Your task to perform on an android device: toggle javascript in the chrome app Image 0: 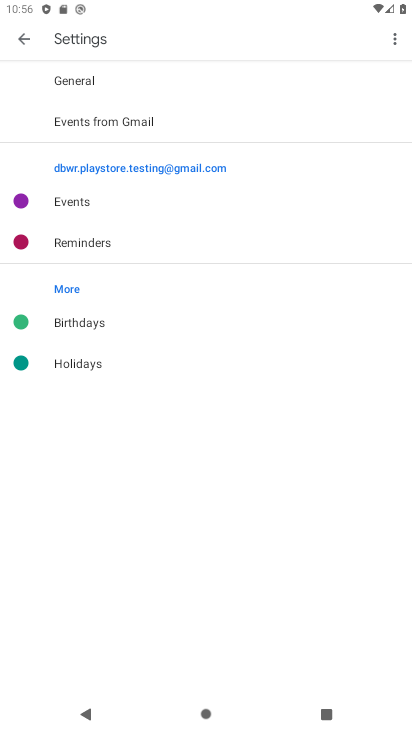
Step 0: press back button
Your task to perform on an android device: toggle javascript in the chrome app Image 1: 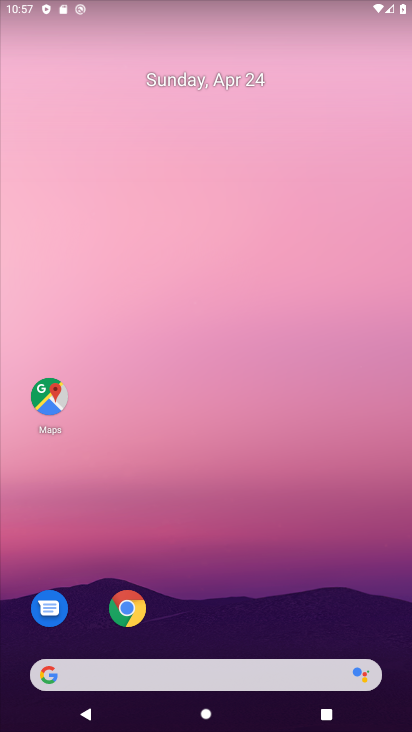
Step 1: drag from (216, 551) to (221, 17)
Your task to perform on an android device: toggle javascript in the chrome app Image 2: 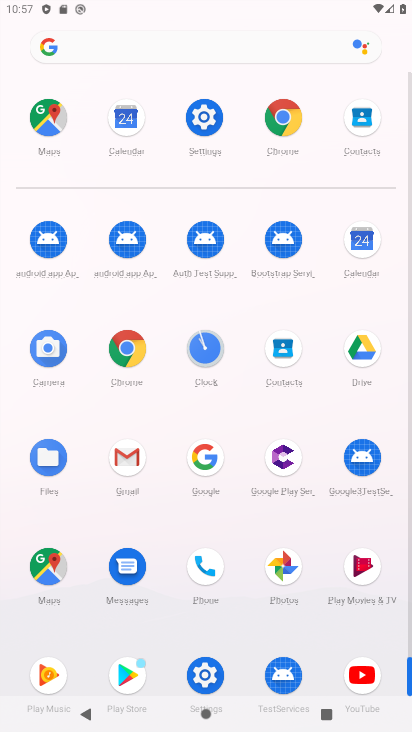
Step 2: drag from (8, 528) to (6, 265)
Your task to perform on an android device: toggle javascript in the chrome app Image 3: 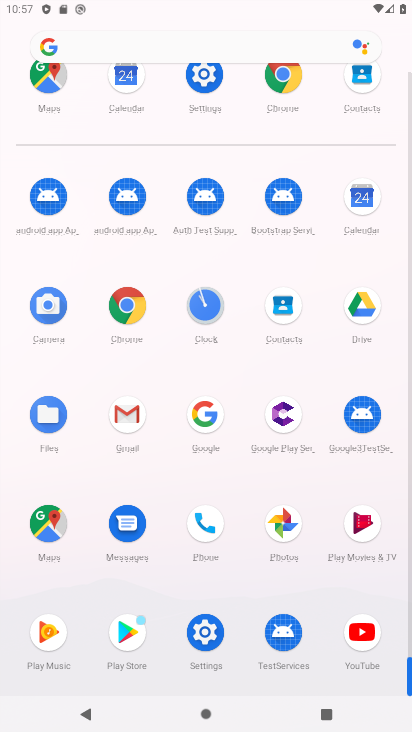
Step 3: click (129, 308)
Your task to perform on an android device: toggle javascript in the chrome app Image 4: 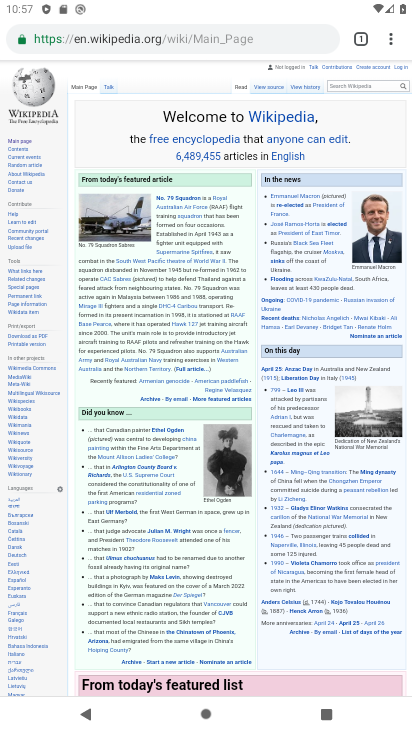
Step 4: drag from (392, 38) to (262, 512)
Your task to perform on an android device: toggle javascript in the chrome app Image 5: 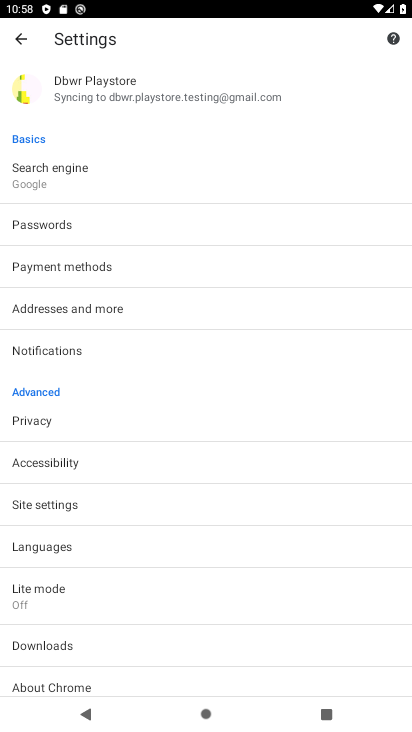
Step 5: click (87, 509)
Your task to perform on an android device: toggle javascript in the chrome app Image 6: 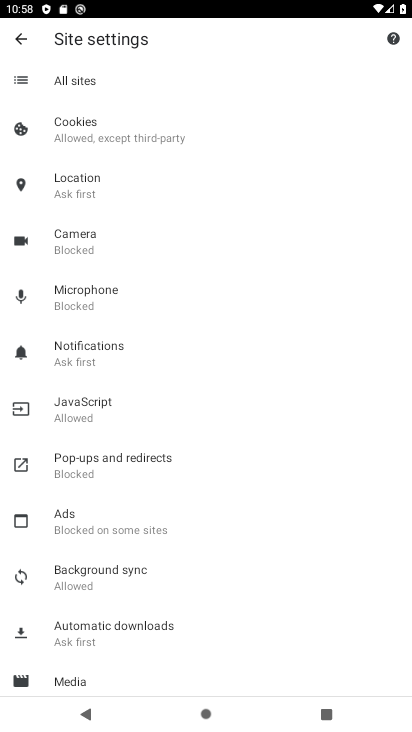
Step 6: click (116, 400)
Your task to perform on an android device: toggle javascript in the chrome app Image 7: 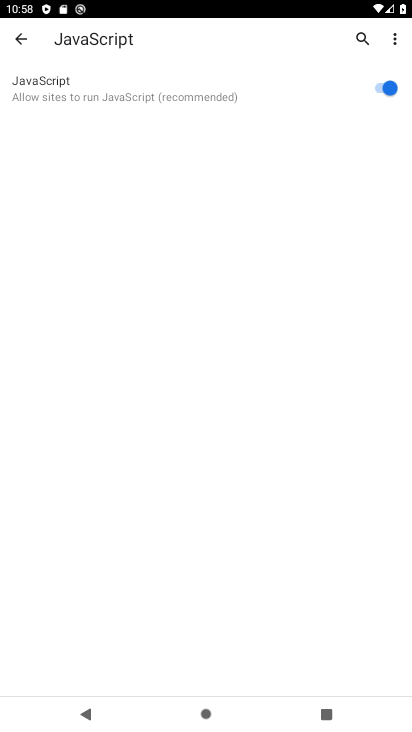
Step 7: click (378, 75)
Your task to perform on an android device: toggle javascript in the chrome app Image 8: 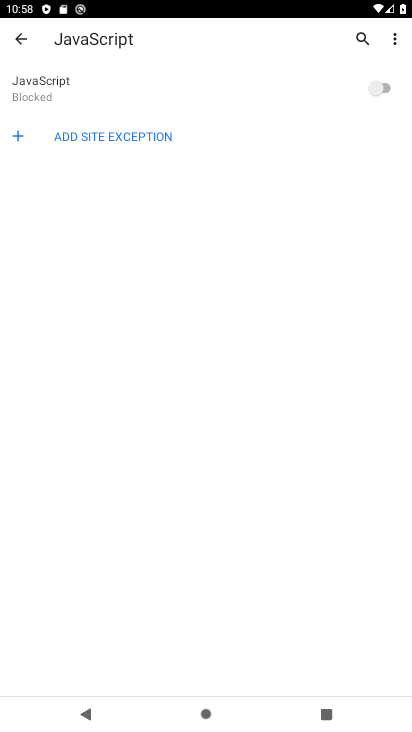
Step 8: task complete